Your task to perform on an android device: Open Amazon Image 0: 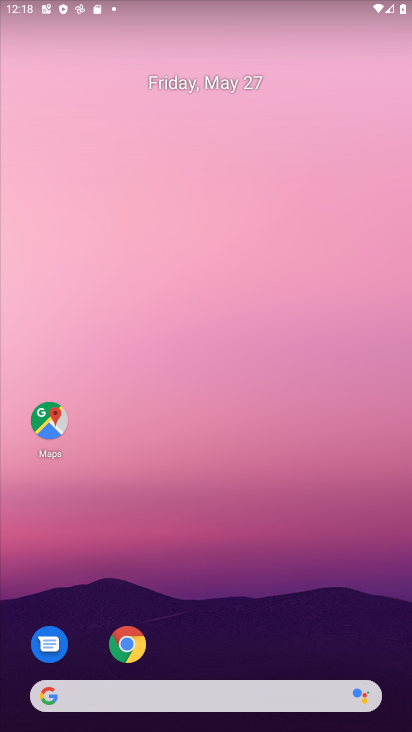
Step 0: drag from (247, 608) to (200, 104)
Your task to perform on an android device: Open Amazon Image 1: 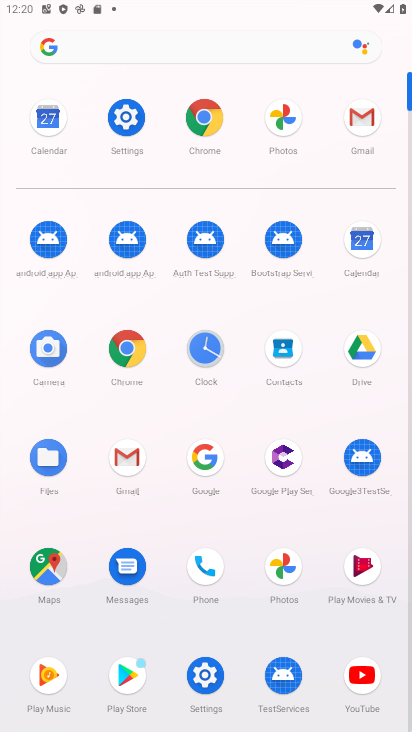
Step 1: click (211, 479)
Your task to perform on an android device: Open Amazon Image 2: 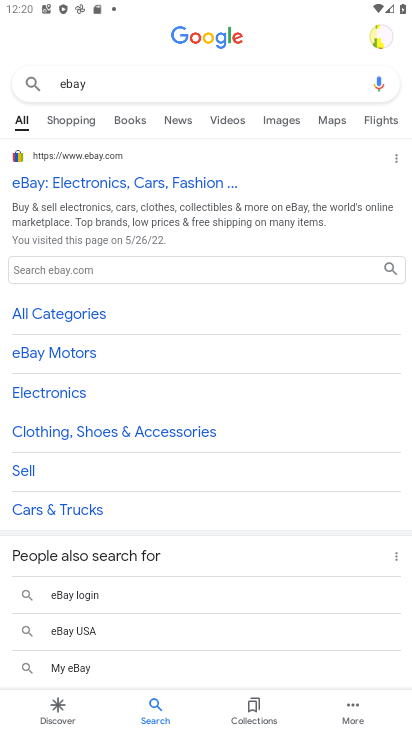
Step 2: press back button
Your task to perform on an android device: Open Amazon Image 3: 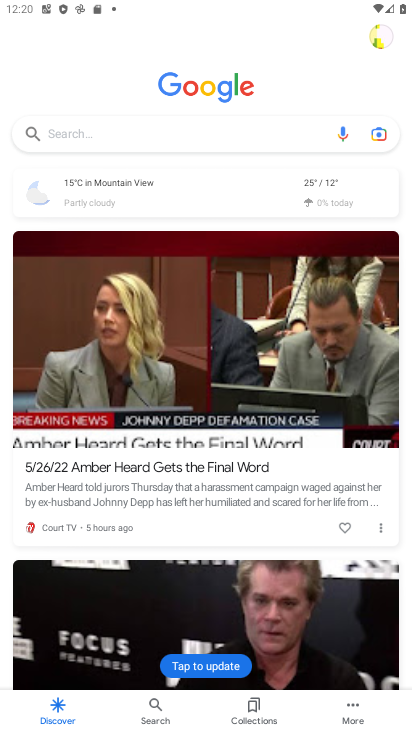
Step 3: click (92, 128)
Your task to perform on an android device: Open Amazon Image 4: 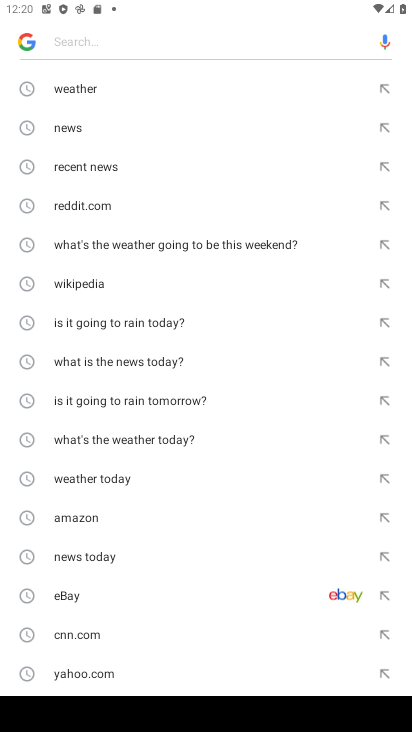
Step 4: click (91, 518)
Your task to perform on an android device: Open Amazon Image 5: 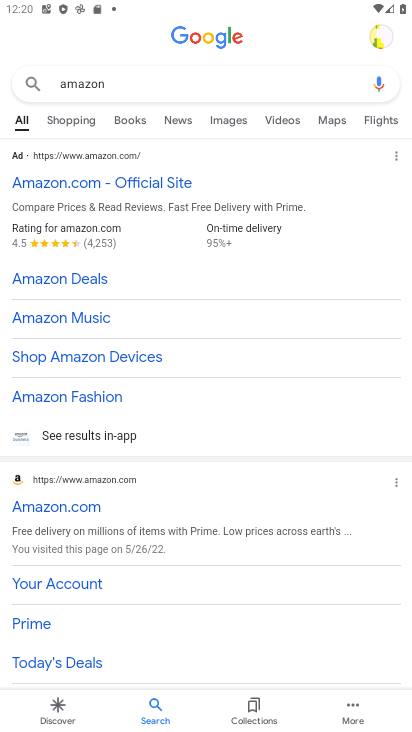
Step 5: task complete